Your task to perform on an android device: toggle airplane mode Image 0: 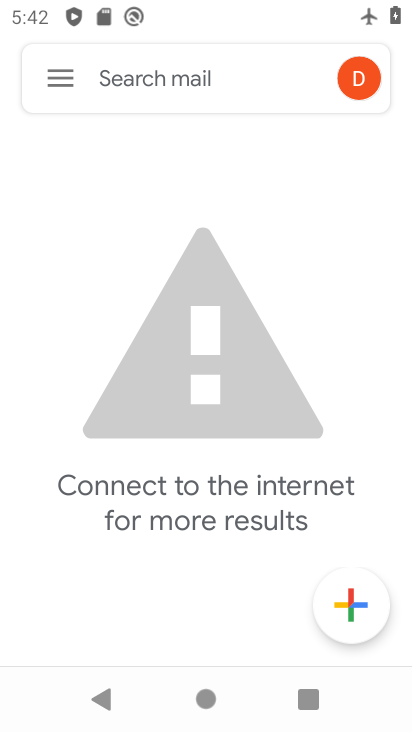
Step 0: press home button
Your task to perform on an android device: toggle airplane mode Image 1: 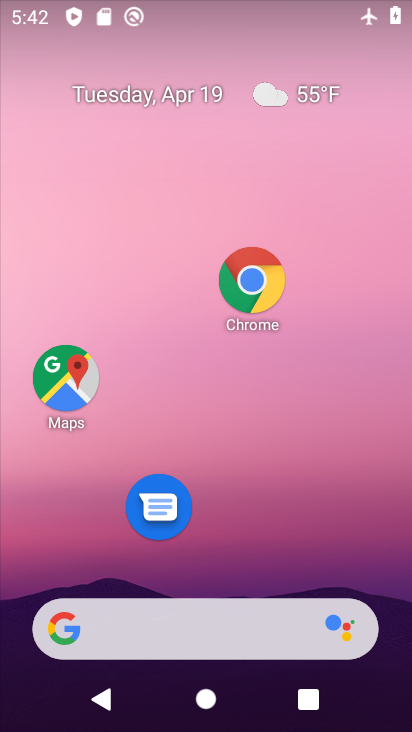
Step 1: drag from (201, 570) to (237, 225)
Your task to perform on an android device: toggle airplane mode Image 2: 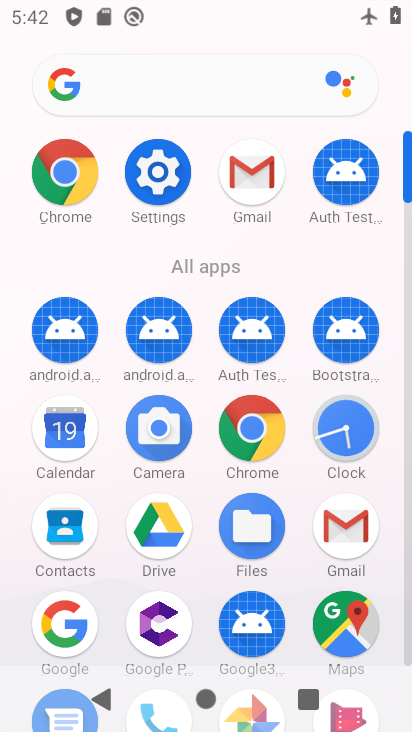
Step 2: click (155, 171)
Your task to perform on an android device: toggle airplane mode Image 3: 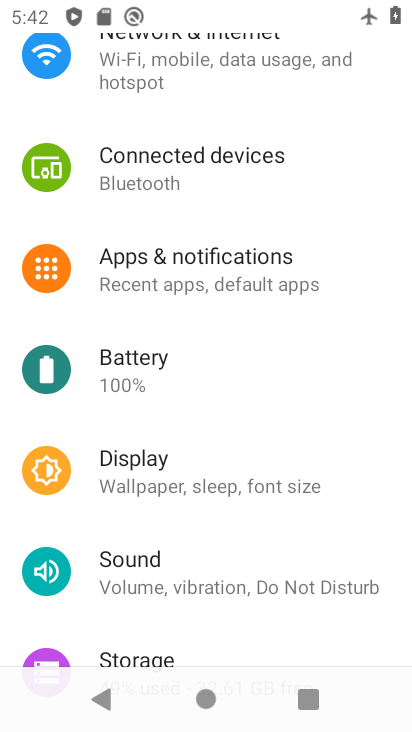
Step 3: click (218, 64)
Your task to perform on an android device: toggle airplane mode Image 4: 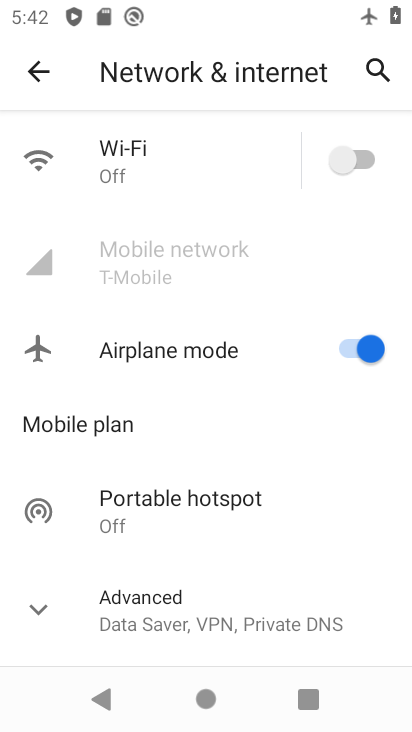
Step 4: click (346, 343)
Your task to perform on an android device: toggle airplane mode Image 5: 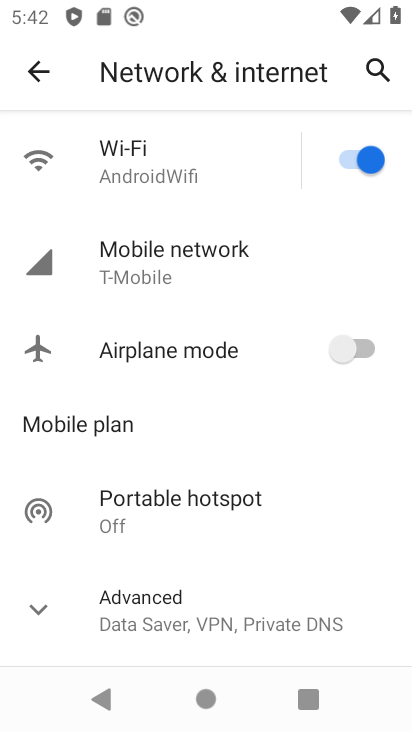
Step 5: task complete